Your task to perform on an android device: turn off notifications in google photos Image 0: 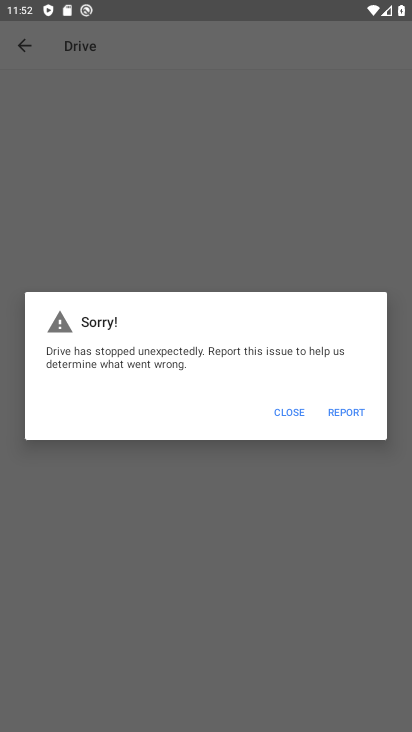
Step 0: press home button
Your task to perform on an android device: turn off notifications in google photos Image 1: 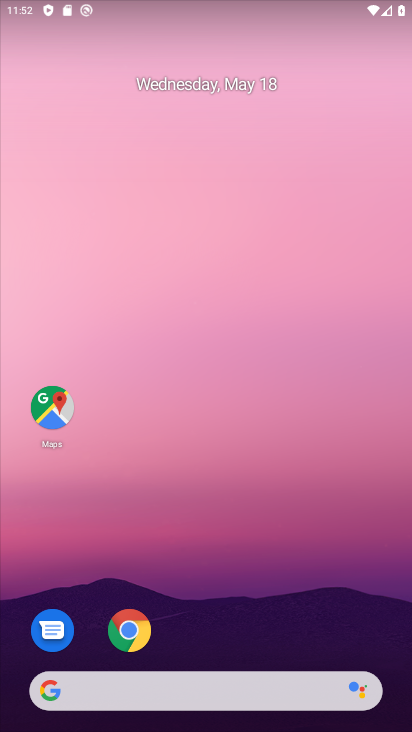
Step 1: drag from (181, 650) to (231, 267)
Your task to perform on an android device: turn off notifications in google photos Image 2: 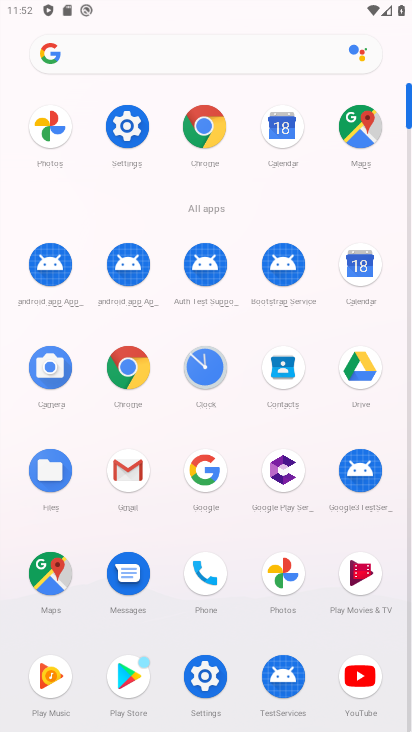
Step 2: click (276, 566)
Your task to perform on an android device: turn off notifications in google photos Image 3: 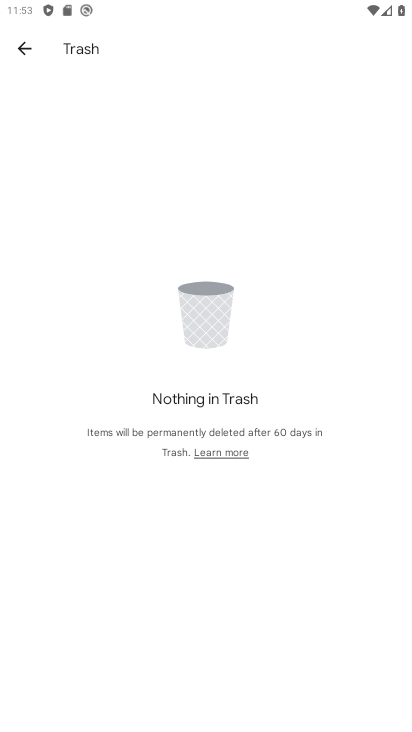
Step 3: click (8, 28)
Your task to perform on an android device: turn off notifications in google photos Image 4: 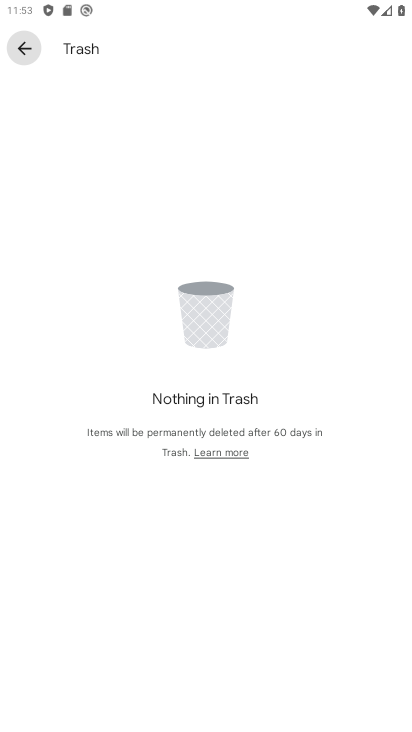
Step 4: click (22, 40)
Your task to perform on an android device: turn off notifications in google photos Image 5: 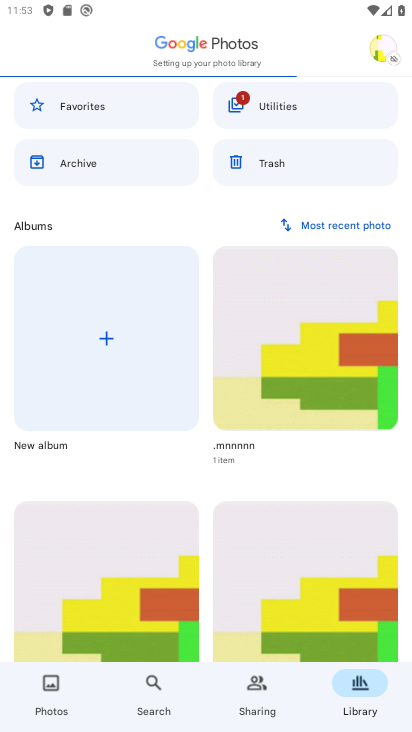
Step 5: click (387, 46)
Your task to perform on an android device: turn off notifications in google photos Image 6: 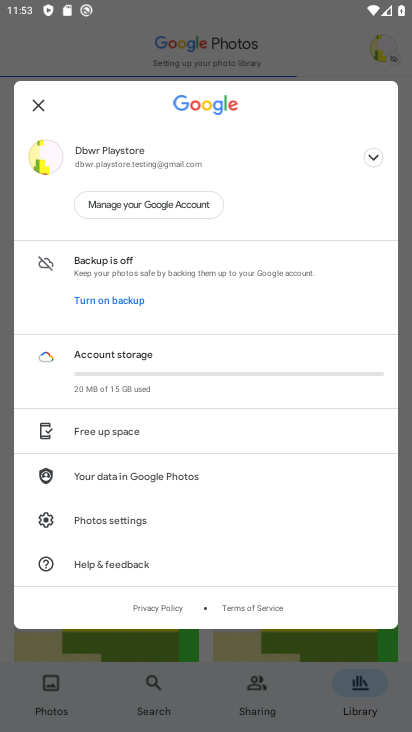
Step 6: drag from (322, 450) to (304, 12)
Your task to perform on an android device: turn off notifications in google photos Image 7: 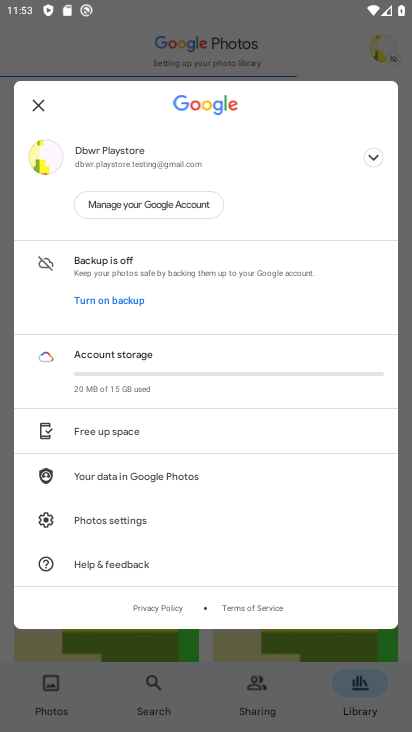
Step 7: click (117, 523)
Your task to perform on an android device: turn off notifications in google photos Image 8: 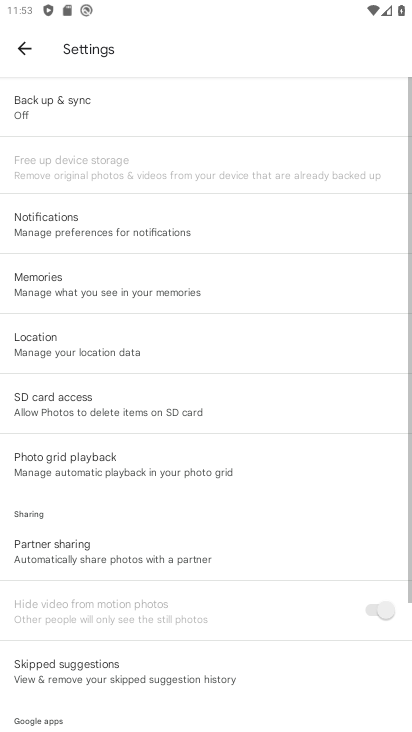
Step 8: drag from (265, 462) to (285, 132)
Your task to perform on an android device: turn off notifications in google photos Image 9: 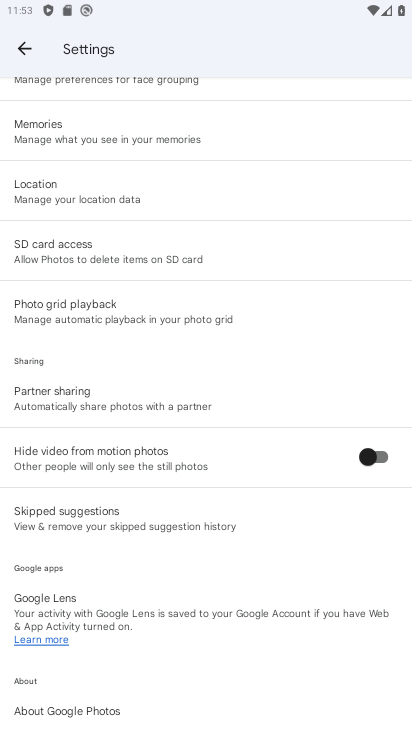
Step 9: drag from (149, 182) to (150, 717)
Your task to perform on an android device: turn off notifications in google photos Image 10: 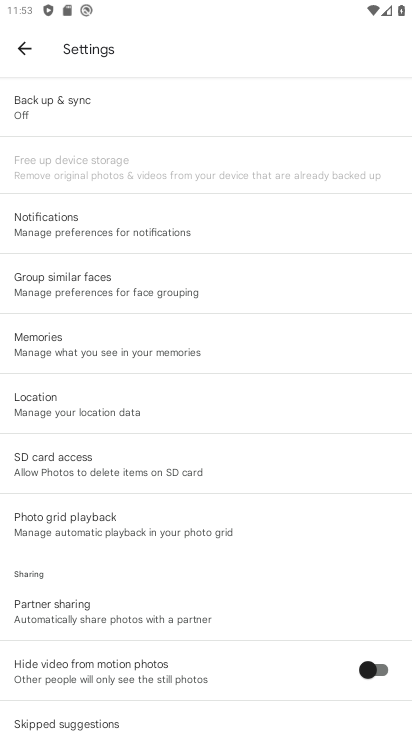
Step 10: drag from (126, 181) to (208, 650)
Your task to perform on an android device: turn off notifications in google photos Image 11: 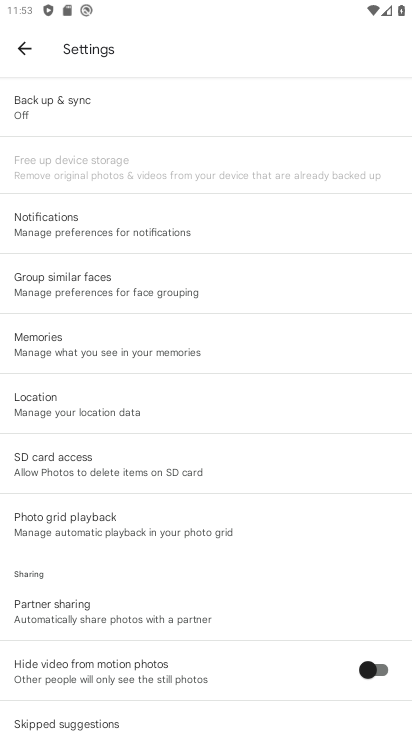
Step 11: drag from (133, 577) to (184, 233)
Your task to perform on an android device: turn off notifications in google photos Image 12: 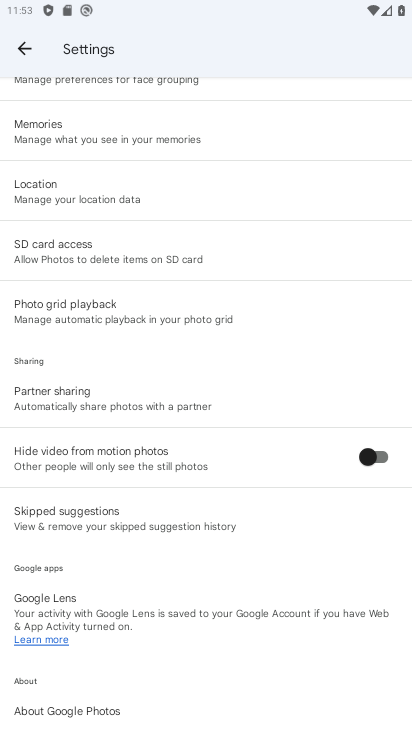
Step 12: drag from (140, 199) to (162, 508)
Your task to perform on an android device: turn off notifications in google photos Image 13: 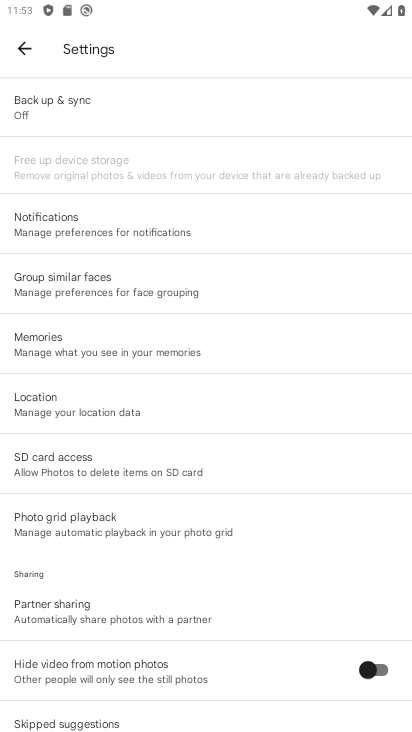
Step 13: click (82, 227)
Your task to perform on an android device: turn off notifications in google photos Image 14: 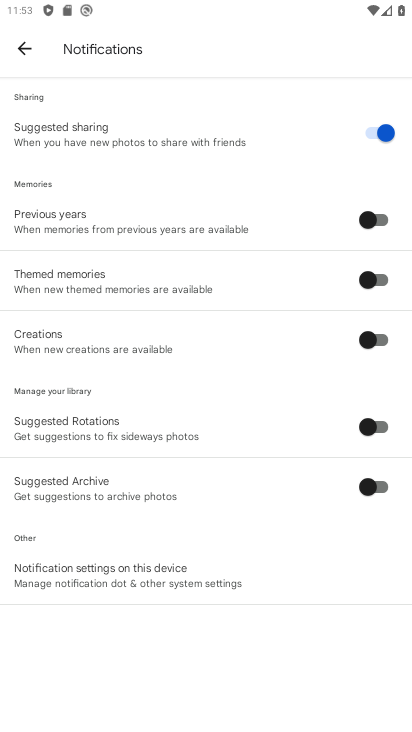
Step 14: click (127, 586)
Your task to perform on an android device: turn off notifications in google photos Image 15: 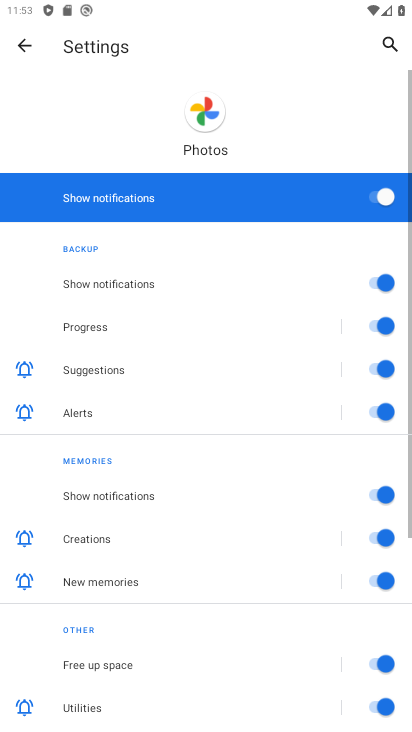
Step 15: click (362, 187)
Your task to perform on an android device: turn off notifications in google photos Image 16: 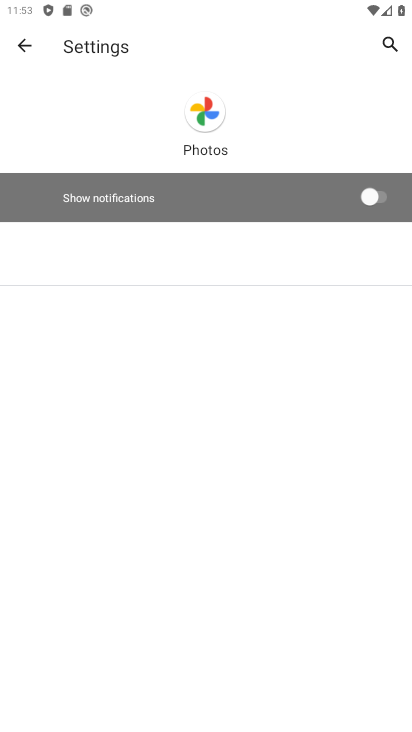
Step 16: task complete